Your task to perform on an android device: set the timer Image 0: 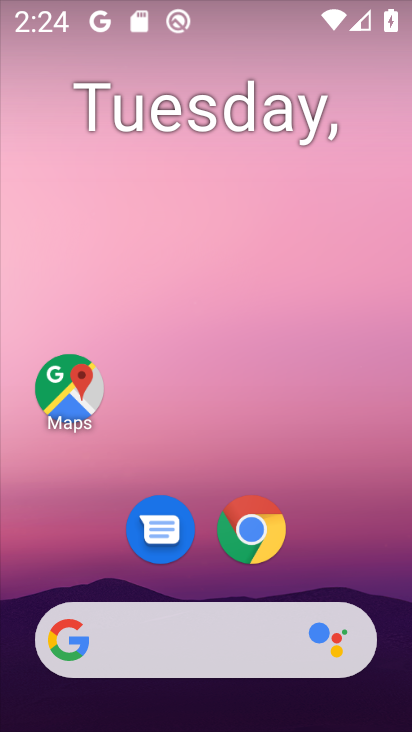
Step 0: drag from (348, 382) to (286, 51)
Your task to perform on an android device: set the timer Image 1: 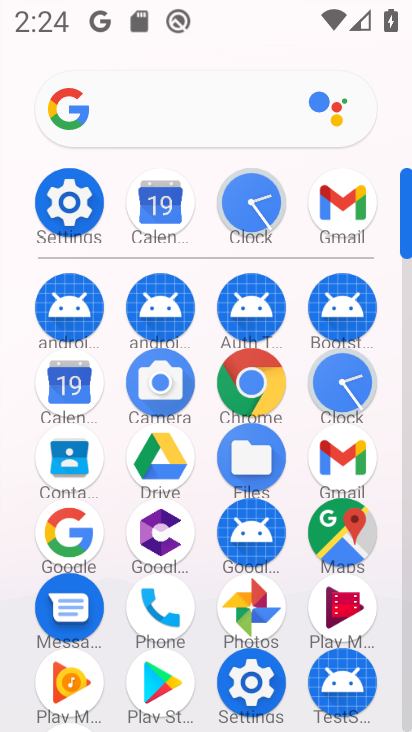
Step 1: click (252, 196)
Your task to perform on an android device: set the timer Image 2: 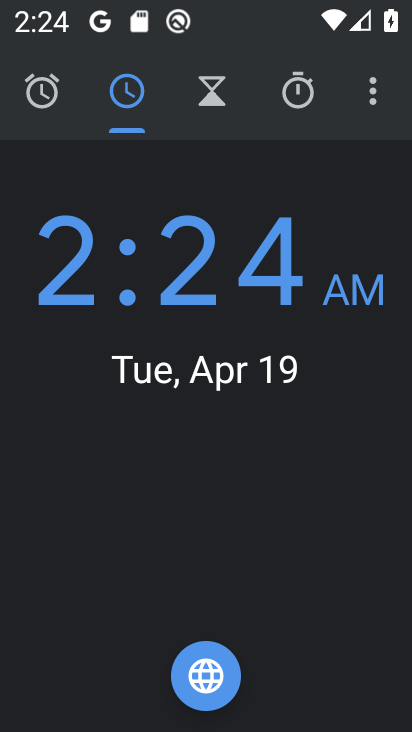
Step 2: click (302, 91)
Your task to perform on an android device: set the timer Image 3: 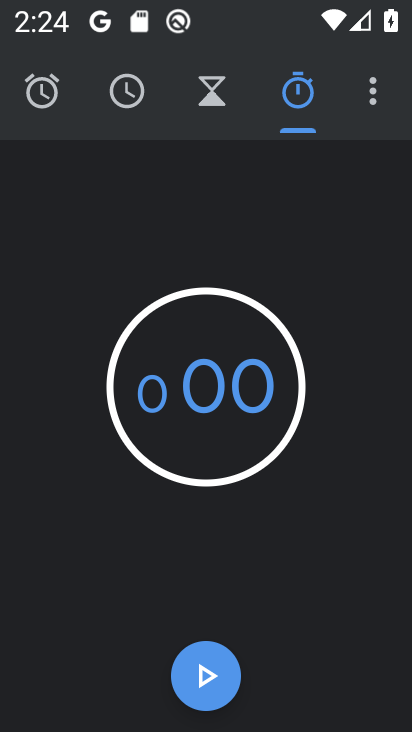
Step 3: click (214, 679)
Your task to perform on an android device: set the timer Image 4: 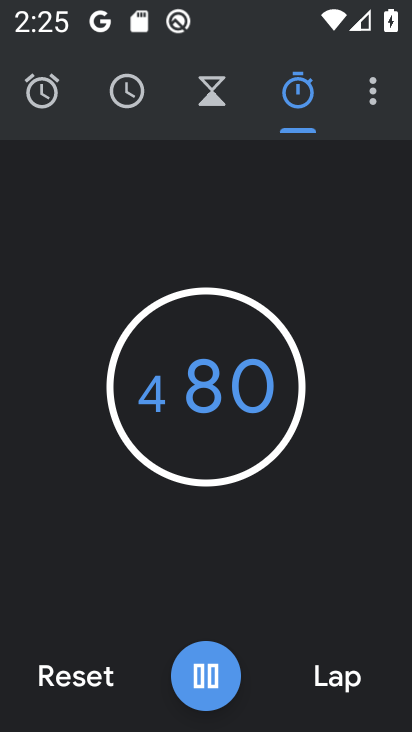
Step 4: task complete